Your task to perform on an android device: Open settings Image 0: 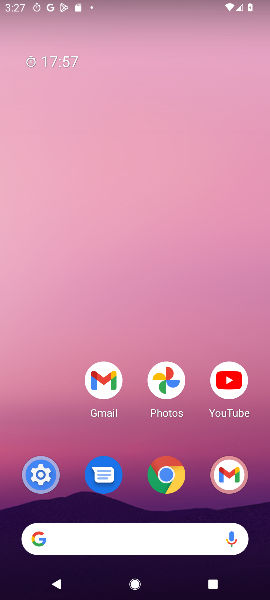
Step 0: press home button
Your task to perform on an android device: Open settings Image 1: 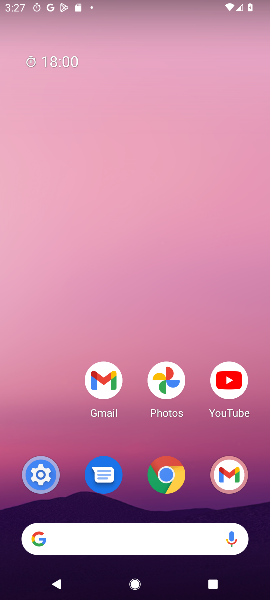
Step 1: drag from (59, 432) to (56, 156)
Your task to perform on an android device: Open settings Image 2: 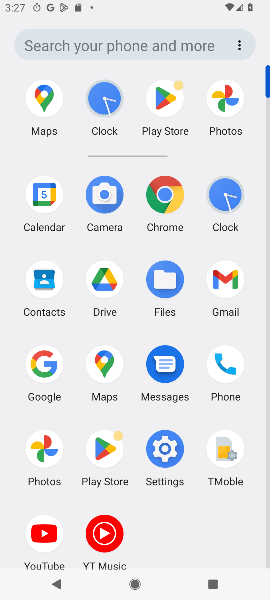
Step 2: click (165, 451)
Your task to perform on an android device: Open settings Image 3: 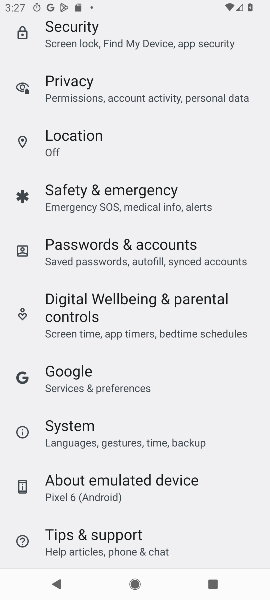
Step 3: task complete